Your task to perform on an android device: Play the last video I watched on Youtube Image 0: 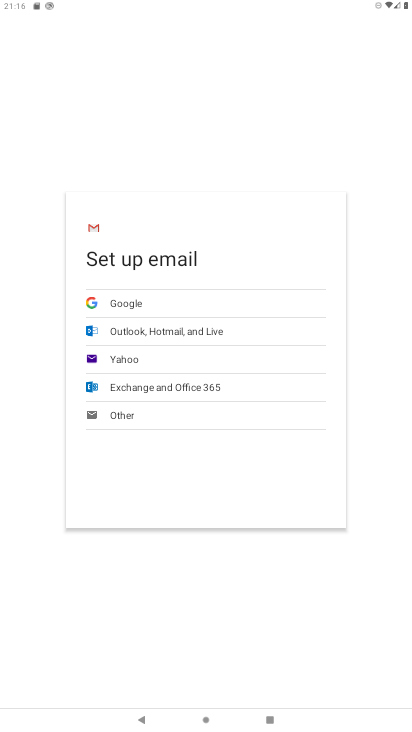
Step 0: press home button
Your task to perform on an android device: Play the last video I watched on Youtube Image 1: 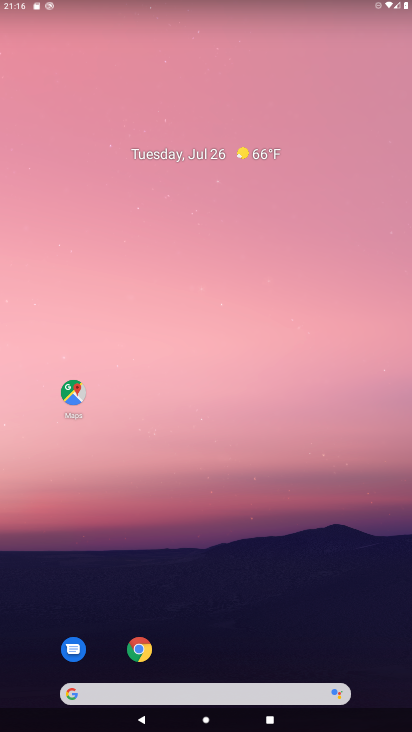
Step 1: drag from (180, 699) to (226, 112)
Your task to perform on an android device: Play the last video I watched on Youtube Image 2: 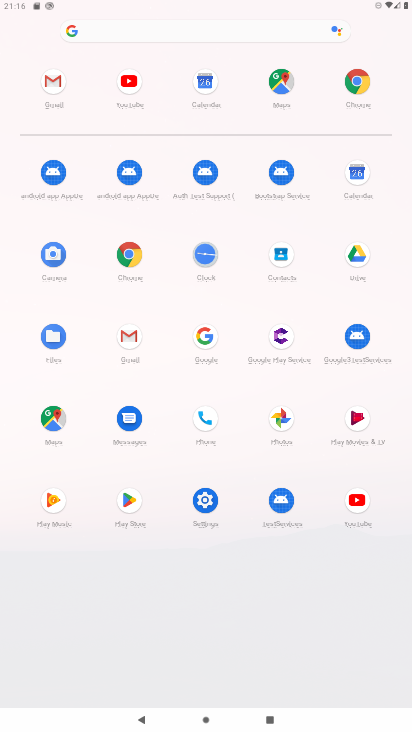
Step 2: click (353, 506)
Your task to perform on an android device: Play the last video I watched on Youtube Image 3: 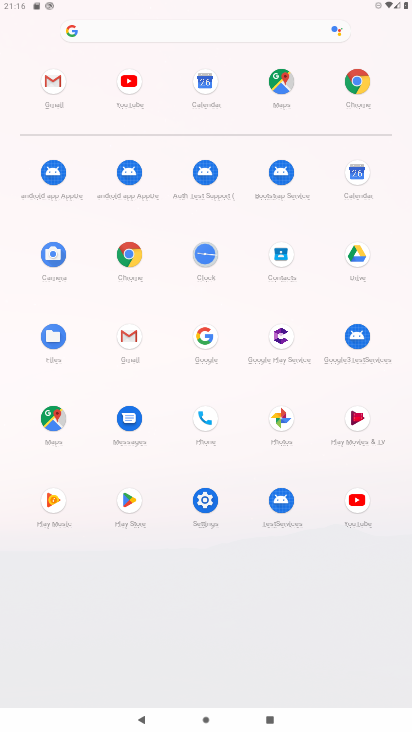
Step 3: click (353, 506)
Your task to perform on an android device: Play the last video I watched on Youtube Image 4: 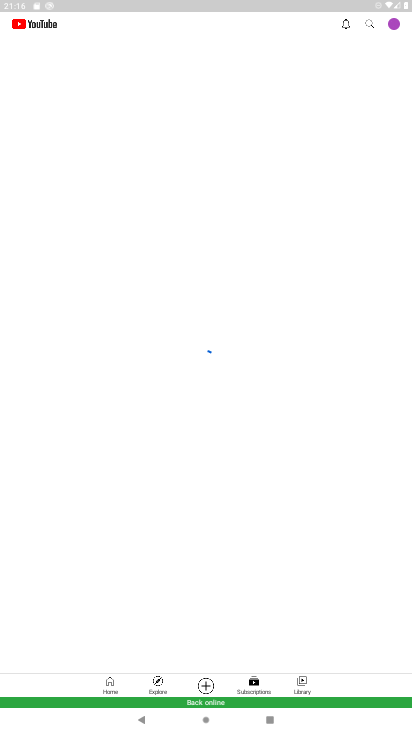
Step 4: click (301, 683)
Your task to perform on an android device: Play the last video I watched on Youtube Image 5: 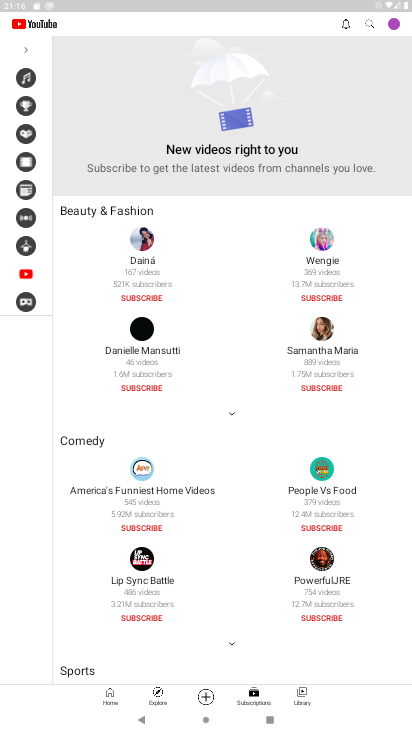
Step 5: click (302, 696)
Your task to perform on an android device: Play the last video I watched on Youtube Image 6: 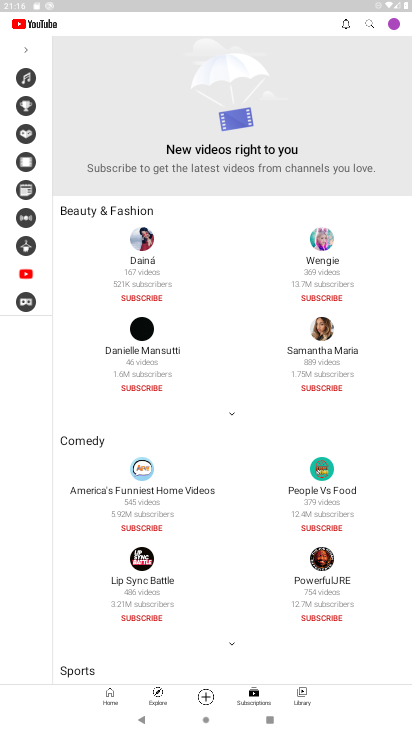
Step 6: click (302, 696)
Your task to perform on an android device: Play the last video I watched on Youtube Image 7: 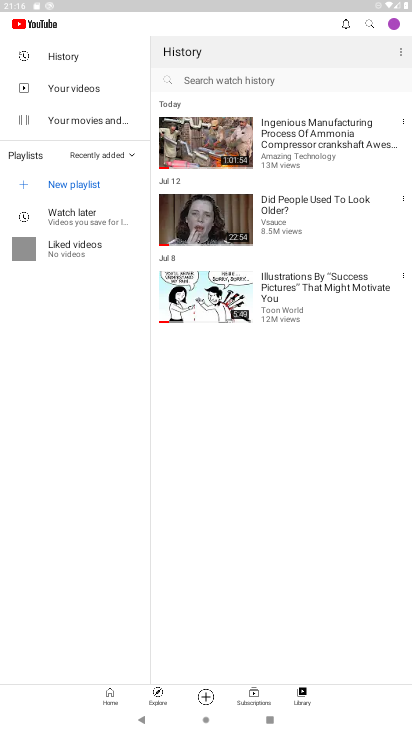
Step 7: click (180, 154)
Your task to perform on an android device: Play the last video I watched on Youtube Image 8: 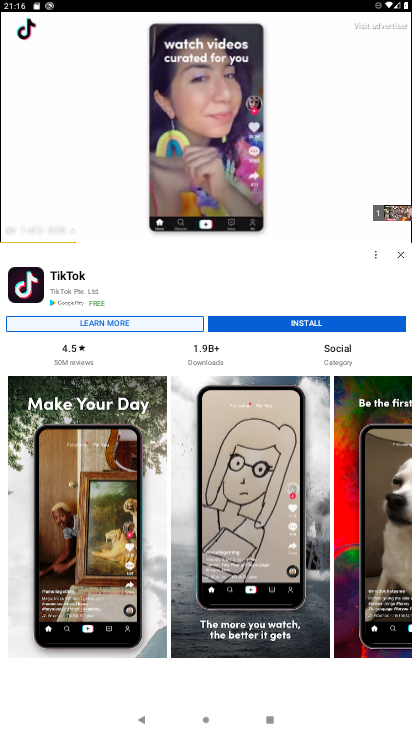
Step 8: task complete